Your task to perform on an android device: open chrome and create a bookmark for the current page Image 0: 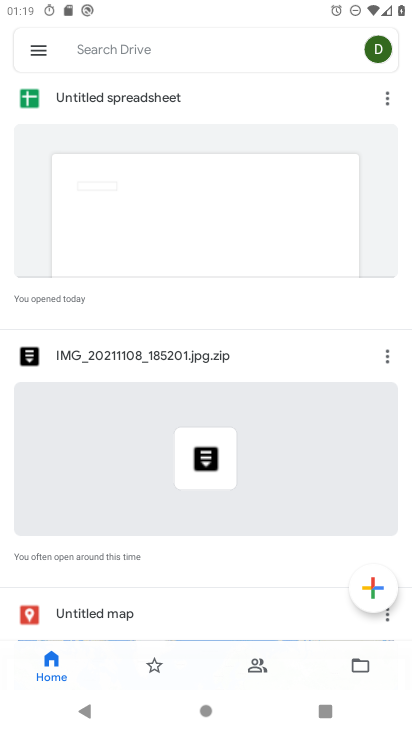
Step 0: press home button
Your task to perform on an android device: open chrome and create a bookmark for the current page Image 1: 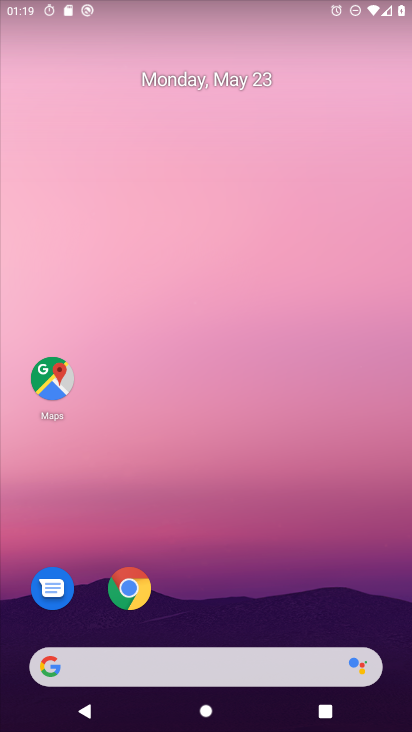
Step 1: drag from (287, 593) to (278, 72)
Your task to perform on an android device: open chrome and create a bookmark for the current page Image 2: 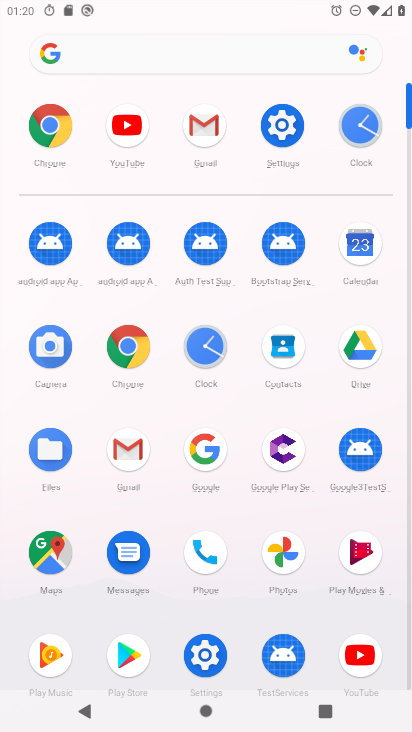
Step 2: click (51, 133)
Your task to perform on an android device: open chrome and create a bookmark for the current page Image 3: 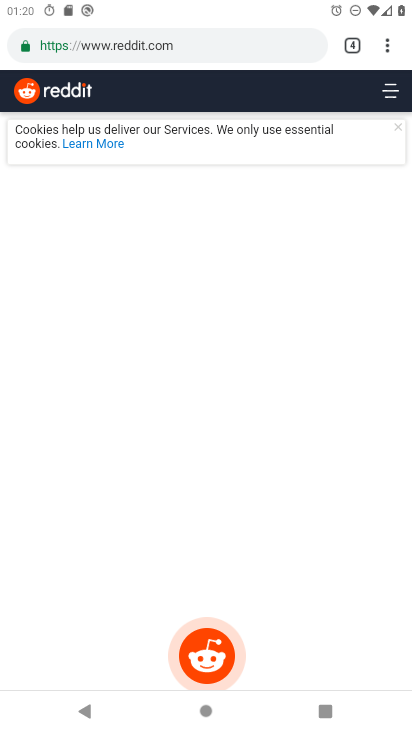
Step 3: click (398, 38)
Your task to perform on an android device: open chrome and create a bookmark for the current page Image 4: 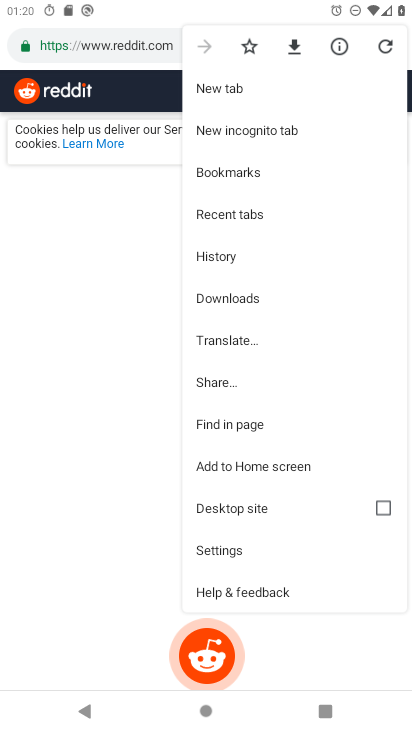
Step 4: click (213, 174)
Your task to perform on an android device: open chrome and create a bookmark for the current page Image 5: 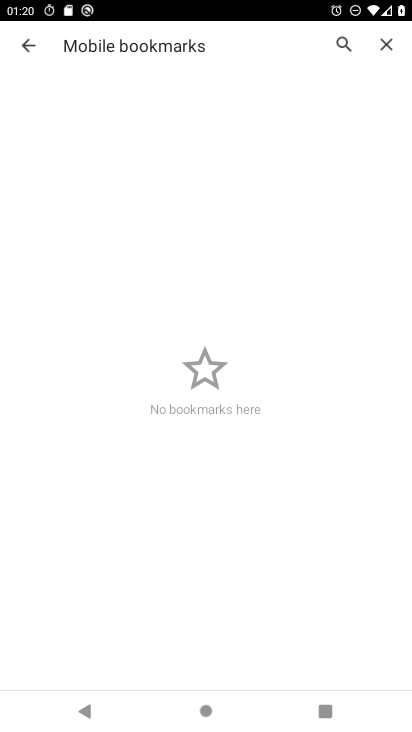
Step 5: task complete